Your task to perform on an android device: Open the web browser Image 0: 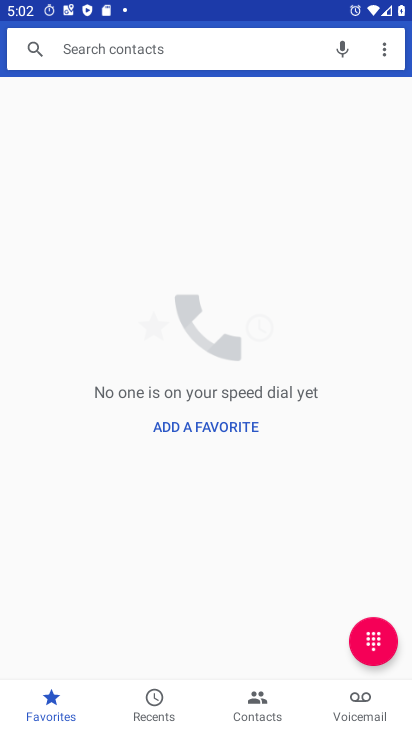
Step 0: press home button
Your task to perform on an android device: Open the web browser Image 1: 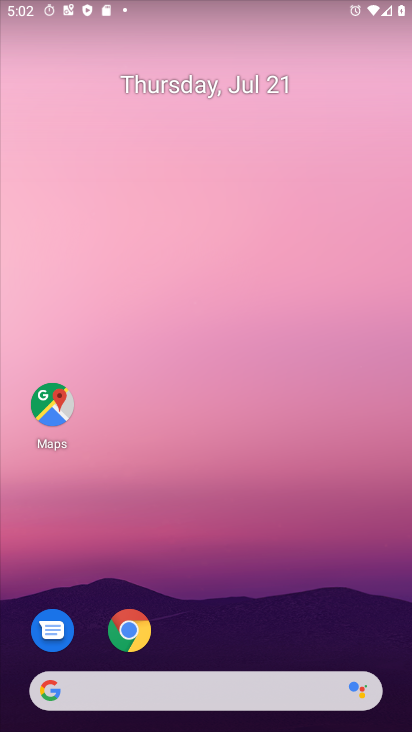
Step 1: click (128, 632)
Your task to perform on an android device: Open the web browser Image 2: 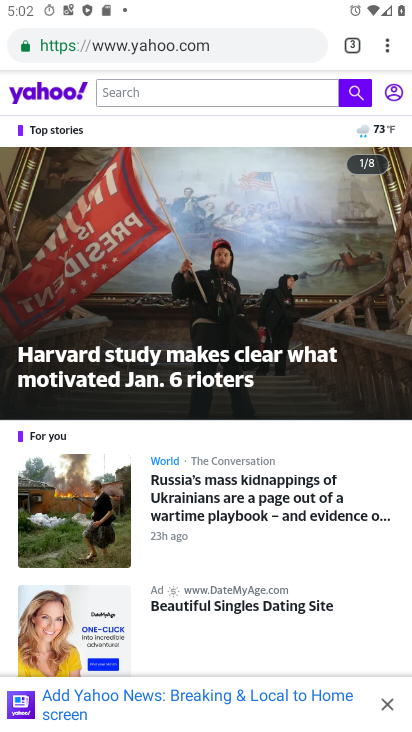
Step 2: task complete